Your task to perform on an android device: Go to privacy settings Image 0: 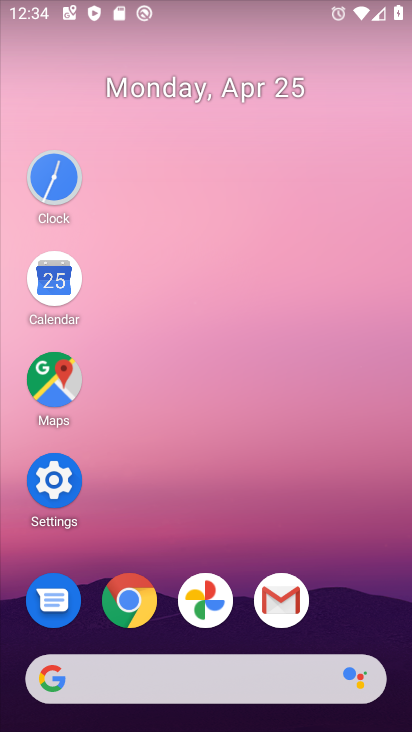
Step 0: click (53, 479)
Your task to perform on an android device: Go to privacy settings Image 1: 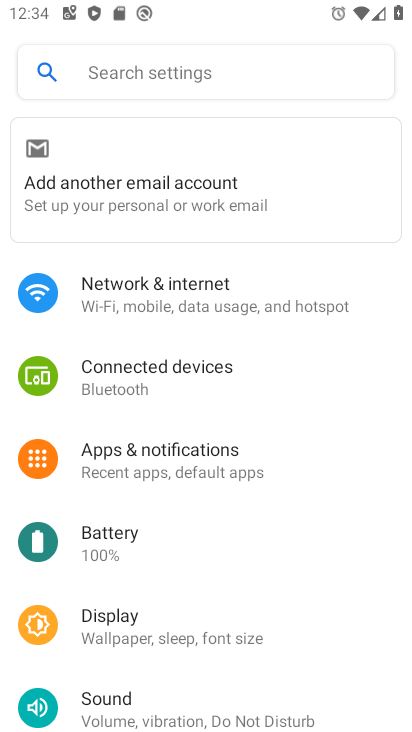
Step 1: drag from (241, 587) to (210, 342)
Your task to perform on an android device: Go to privacy settings Image 2: 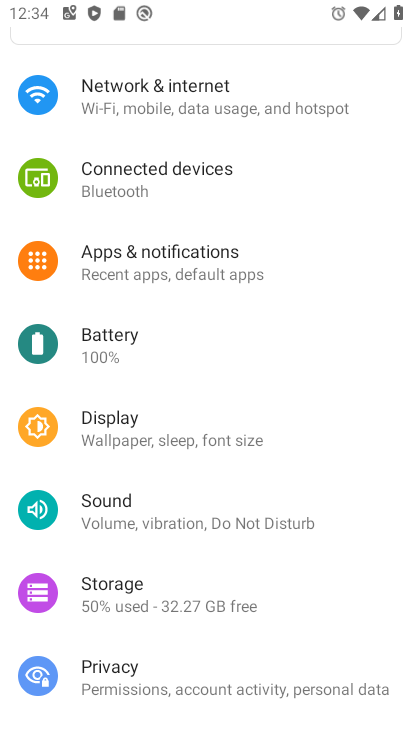
Step 2: click (126, 674)
Your task to perform on an android device: Go to privacy settings Image 3: 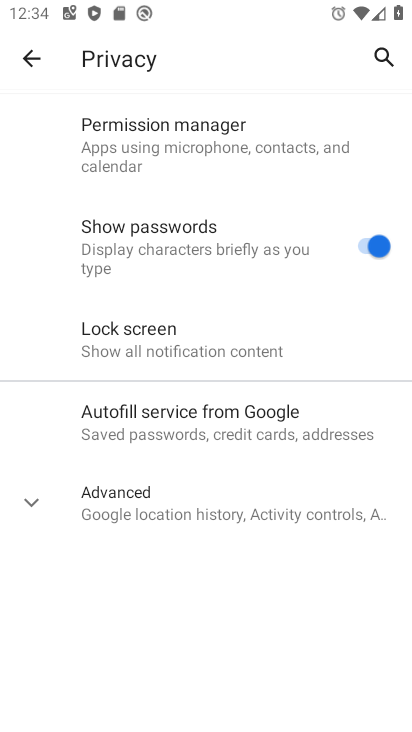
Step 3: task complete